Your task to perform on an android device: What's the weather today? Image 0: 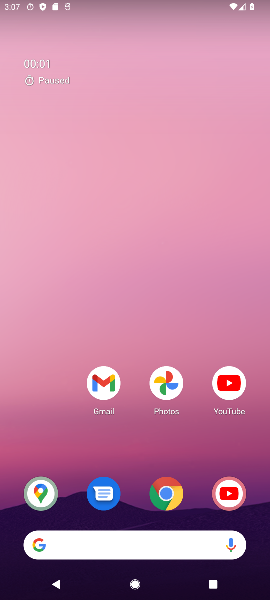
Step 0: click (86, 538)
Your task to perform on an android device: What's the weather today? Image 1: 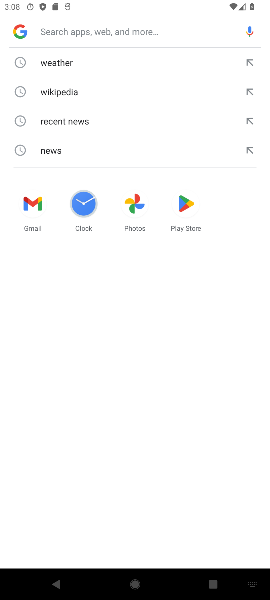
Step 1: type "What's the weather today?"
Your task to perform on an android device: What's the weather today? Image 2: 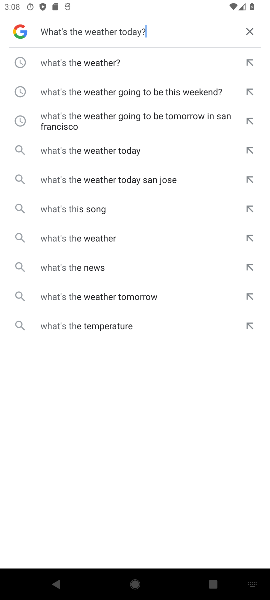
Step 2: type ""
Your task to perform on an android device: What's the weather today? Image 3: 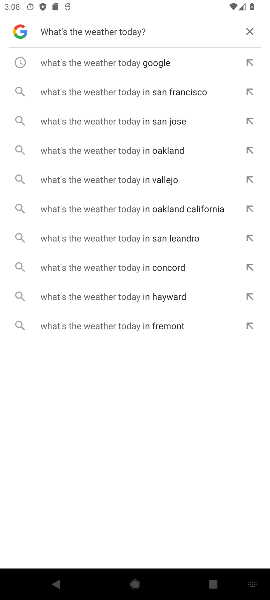
Step 3: type ""
Your task to perform on an android device: What's the weather today? Image 4: 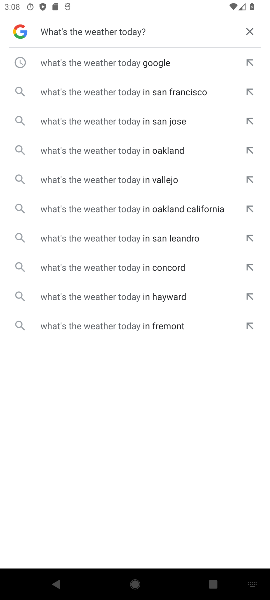
Step 4: type ""
Your task to perform on an android device: What's the weather today? Image 5: 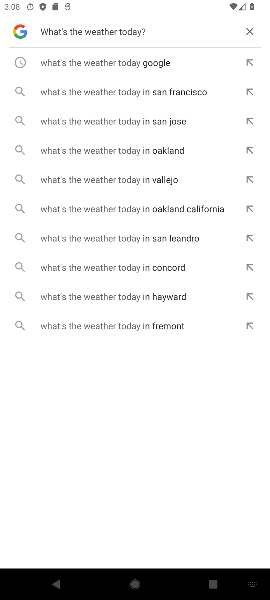
Step 5: task complete